Your task to perform on an android device: Open network settings Image 0: 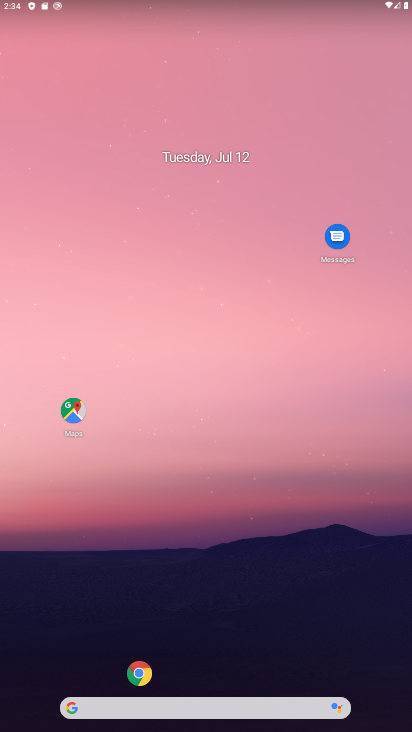
Step 0: drag from (47, 654) to (201, 33)
Your task to perform on an android device: Open network settings Image 1: 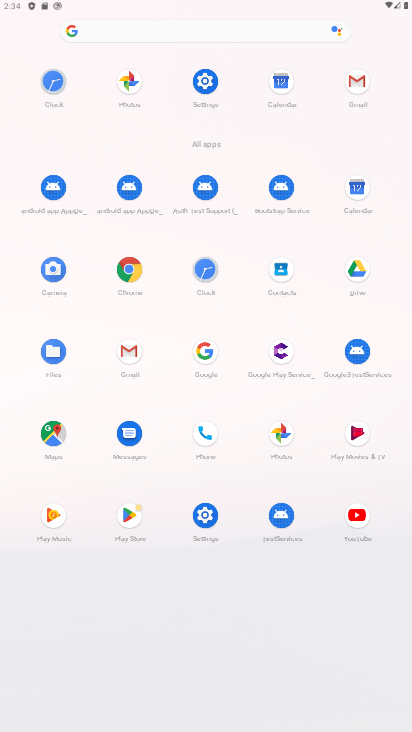
Step 1: click (178, 527)
Your task to perform on an android device: Open network settings Image 2: 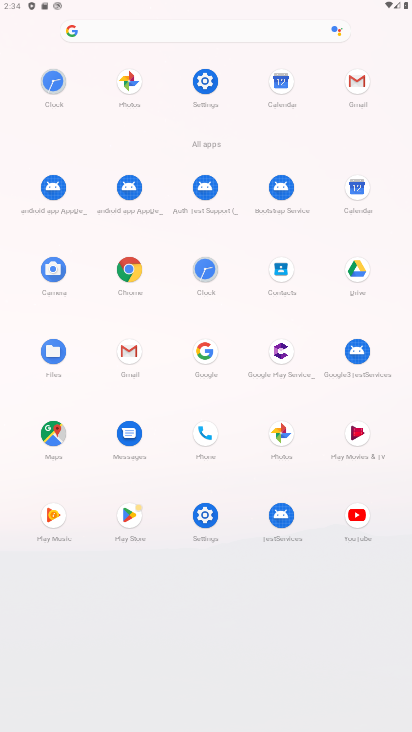
Step 2: click (203, 511)
Your task to perform on an android device: Open network settings Image 3: 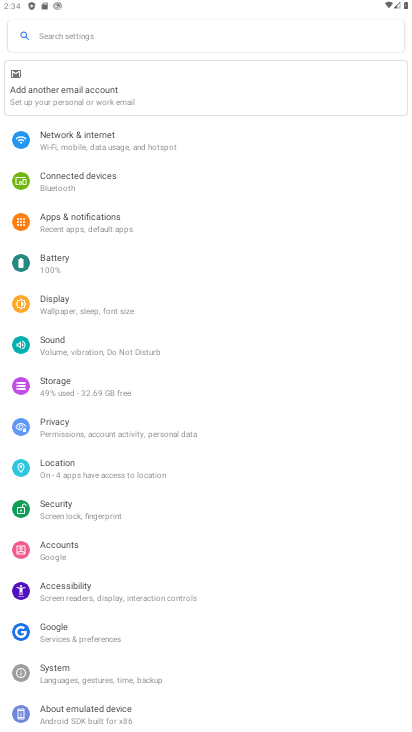
Step 3: click (74, 171)
Your task to perform on an android device: Open network settings Image 4: 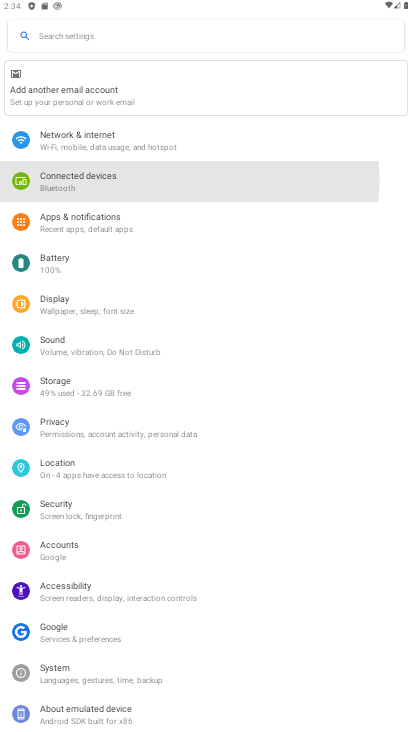
Step 4: click (76, 153)
Your task to perform on an android device: Open network settings Image 5: 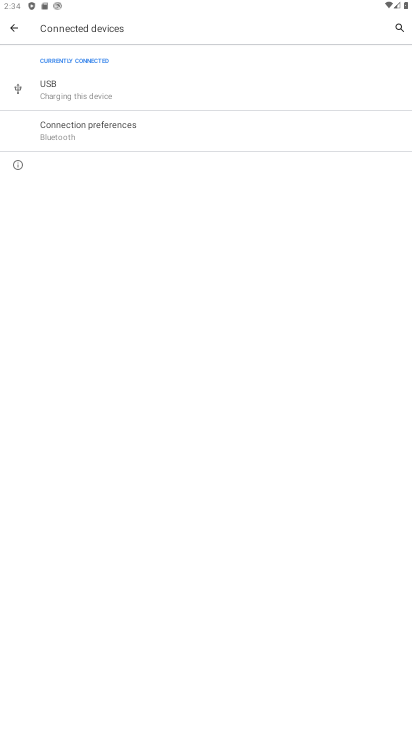
Step 5: click (15, 29)
Your task to perform on an android device: Open network settings Image 6: 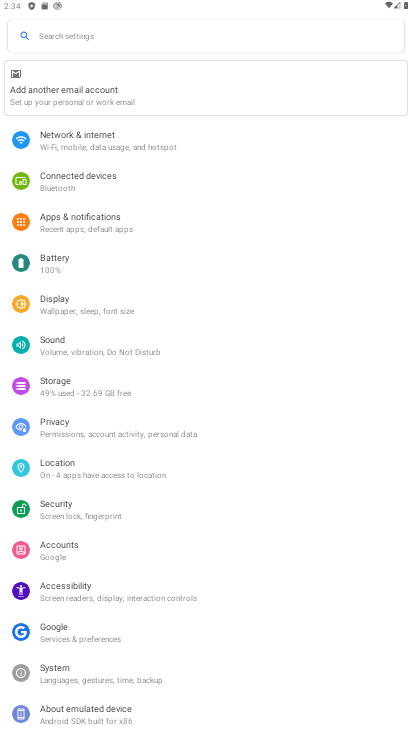
Step 6: click (93, 155)
Your task to perform on an android device: Open network settings Image 7: 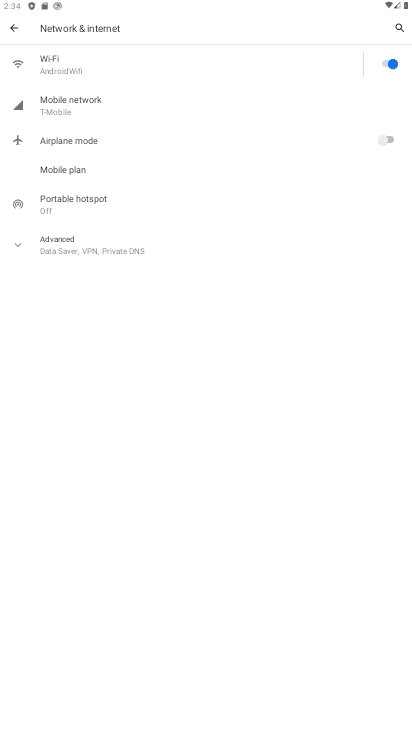
Step 7: task complete